Your task to perform on an android device: read, delete, or share a saved page in the chrome app Image 0: 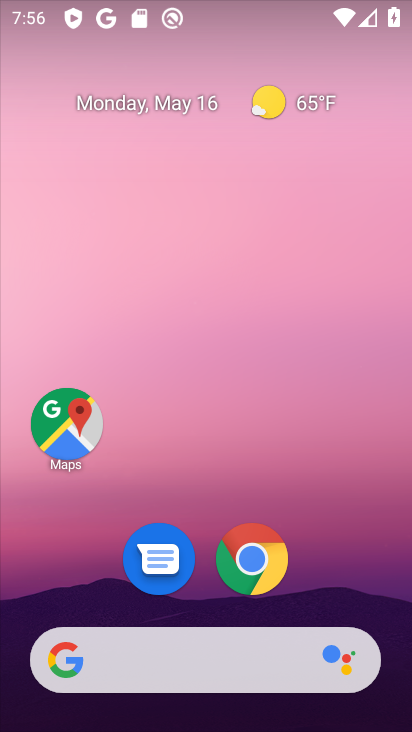
Step 0: click (263, 552)
Your task to perform on an android device: read, delete, or share a saved page in the chrome app Image 1: 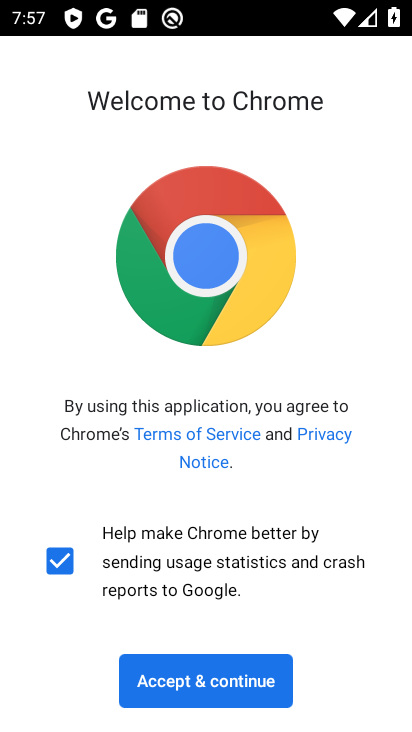
Step 1: click (193, 687)
Your task to perform on an android device: read, delete, or share a saved page in the chrome app Image 2: 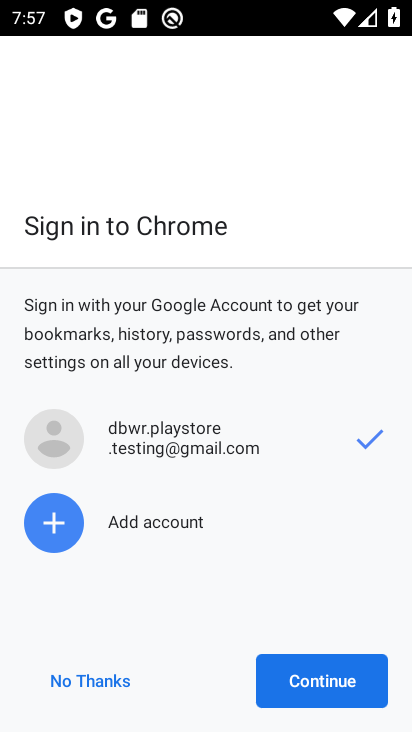
Step 2: click (319, 679)
Your task to perform on an android device: read, delete, or share a saved page in the chrome app Image 3: 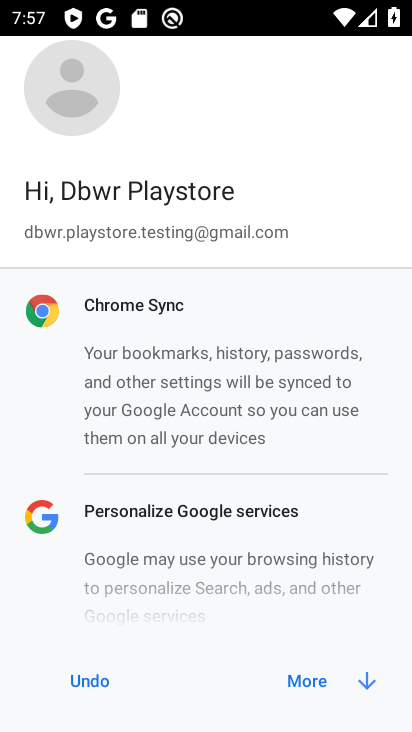
Step 3: click (342, 681)
Your task to perform on an android device: read, delete, or share a saved page in the chrome app Image 4: 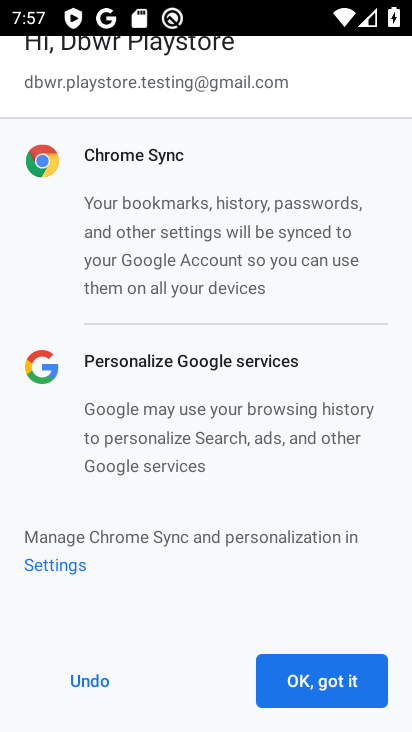
Step 4: click (342, 681)
Your task to perform on an android device: read, delete, or share a saved page in the chrome app Image 5: 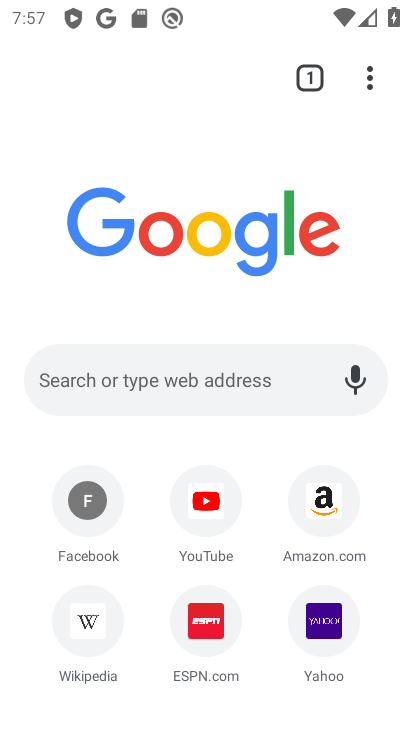
Step 5: drag from (372, 81) to (105, 506)
Your task to perform on an android device: read, delete, or share a saved page in the chrome app Image 6: 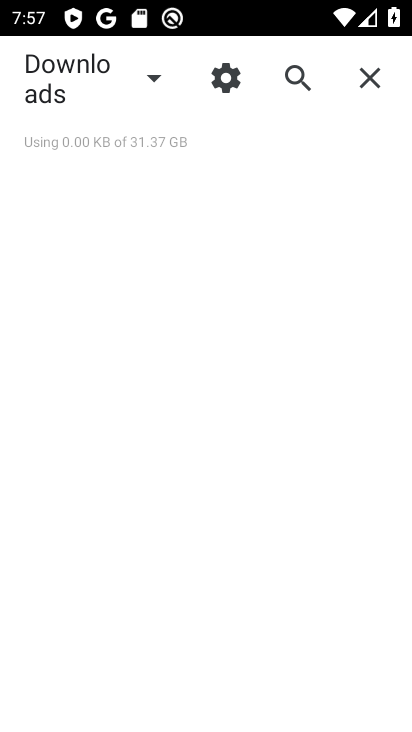
Step 6: click (127, 75)
Your task to perform on an android device: read, delete, or share a saved page in the chrome app Image 7: 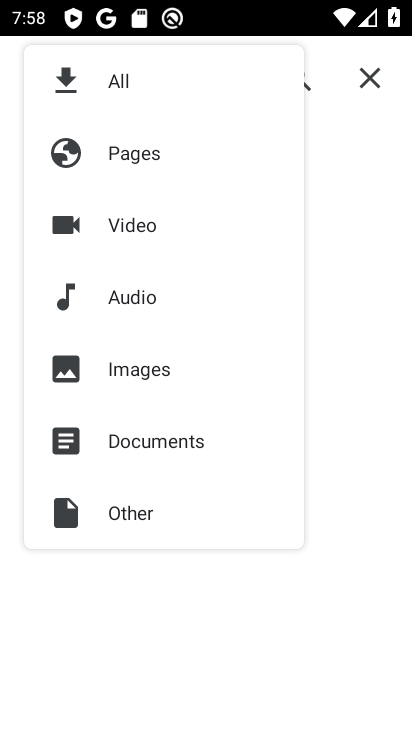
Step 7: click (137, 151)
Your task to perform on an android device: read, delete, or share a saved page in the chrome app Image 8: 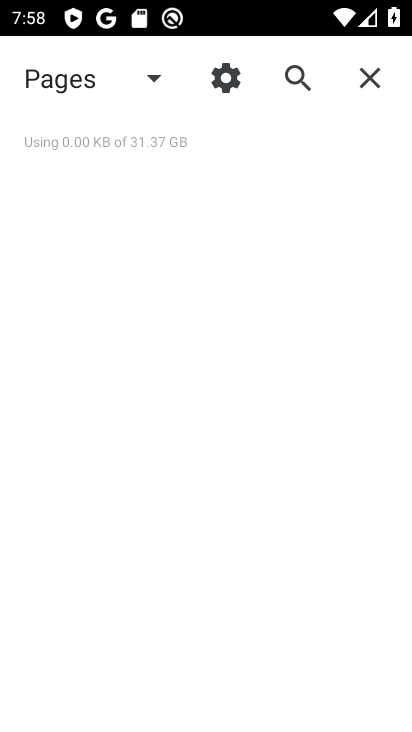
Step 8: task complete